Your task to perform on an android device: Go to wifi settings Image 0: 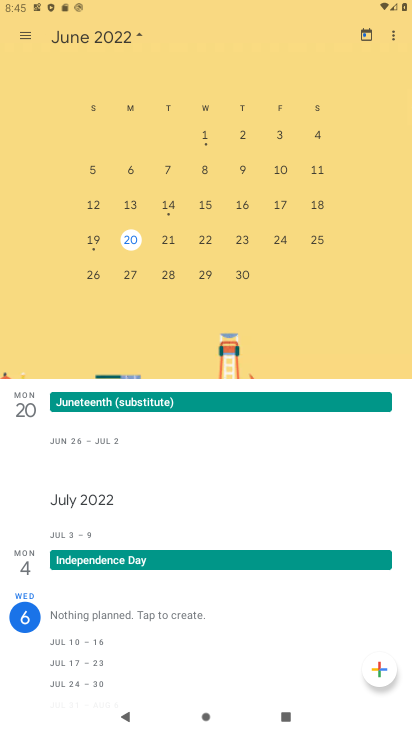
Step 0: press home button
Your task to perform on an android device: Go to wifi settings Image 1: 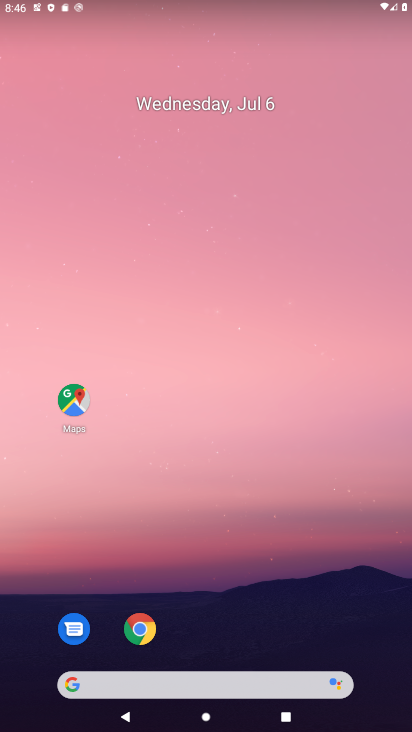
Step 1: drag from (215, 614) to (159, 196)
Your task to perform on an android device: Go to wifi settings Image 2: 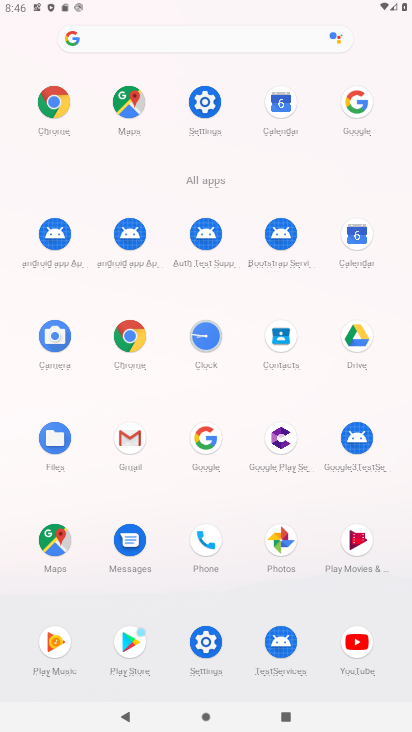
Step 2: click (202, 102)
Your task to perform on an android device: Go to wifi settings Image 3: 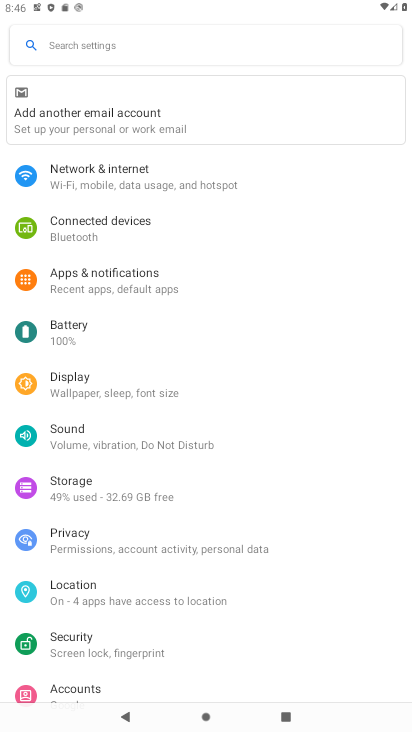
Step 3: click (79, 176)
Your task to perform on an android device: Go to wifi settings Image 4: 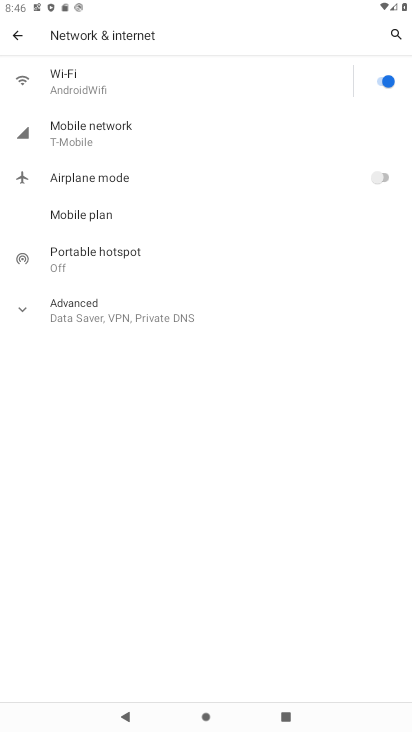
Step 4: click (65, 86)
Your task to perform on an android device: Go to wifi settings Image 5: 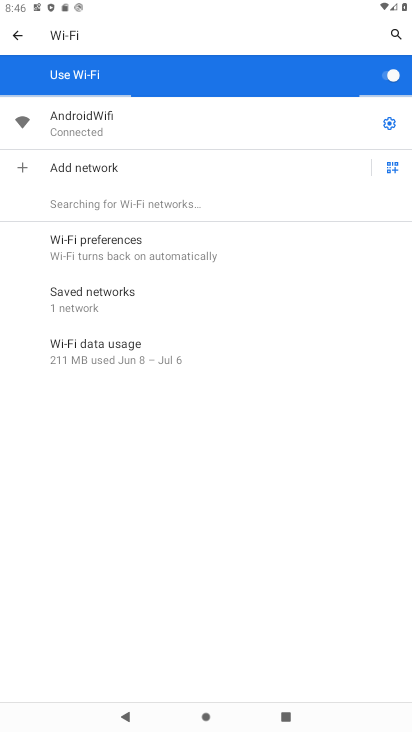
Step 5: click (384, 121)
Your task to perform on an android device: Go to wifi settings Image 6: 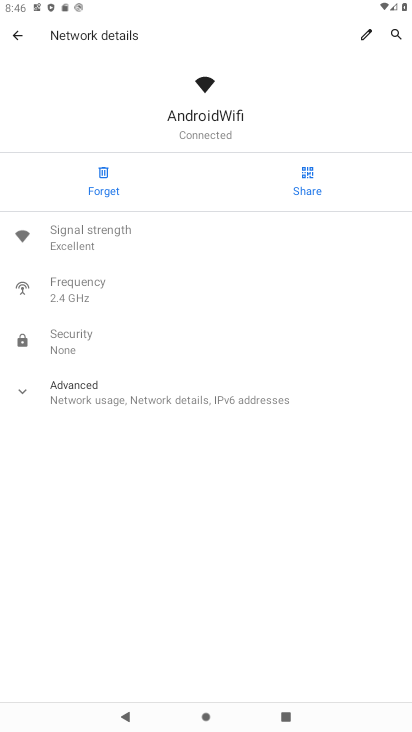
Step 6: task complete